Your task to perform on an android device: set default search engine in the chrome app Image 0: 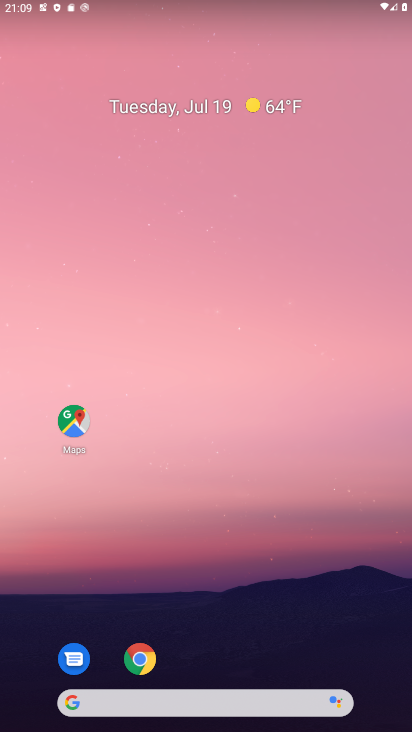
Step 0: click (127, 665)
Your task to perform on an android device: set default search engine in the chrome app Image 1: 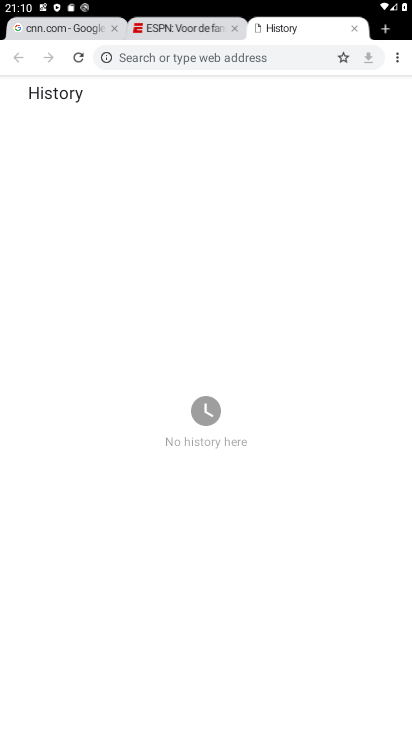
Step 1: click (392, 63)
Your task to perform on an android device: set default search engine in the chrome app Image 2: 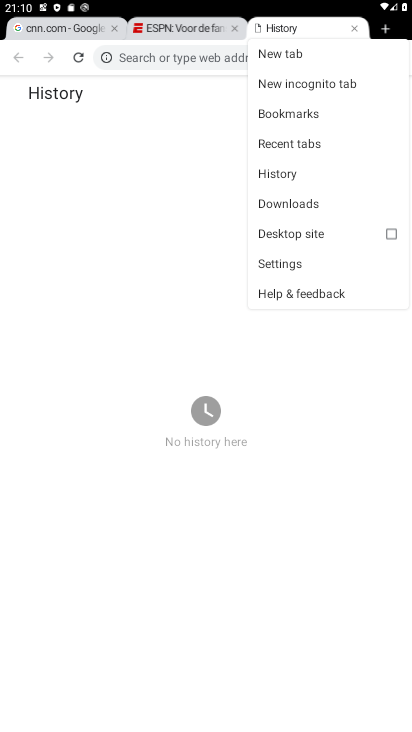
Step 2: click (284, 261)
Your task to perform on an android device: set default search engine in the chrome app Image 3: 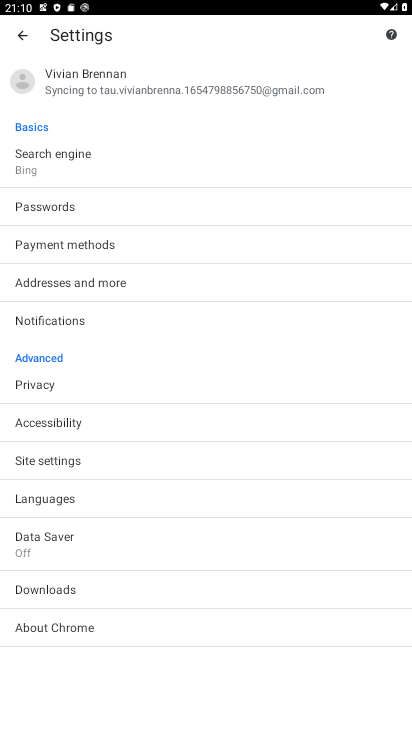
Step 3: click (5, 161)
Your task to perform on an android device: set default search engine in the chrome app Image 4: 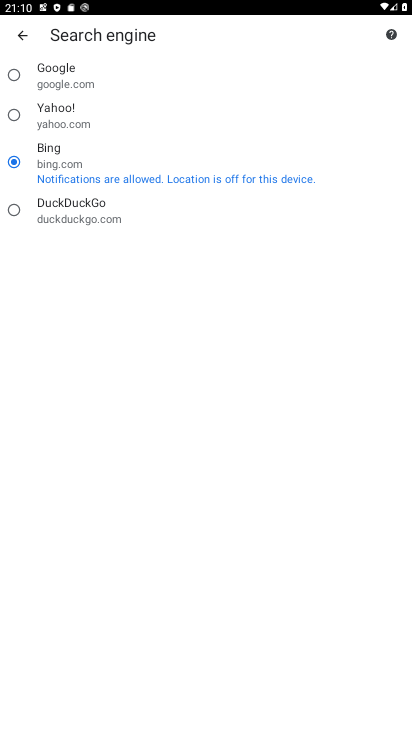
Step 4: click (37, 203)
Your task to perform on an android device: set default search engine in the chrome app Image 5: 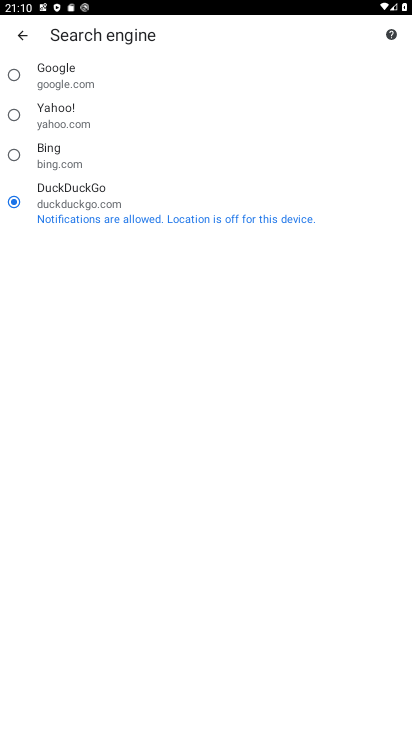
Step 5: task complete